Your task to perform on an android device: move a message to another label in the gmail app Image 0: 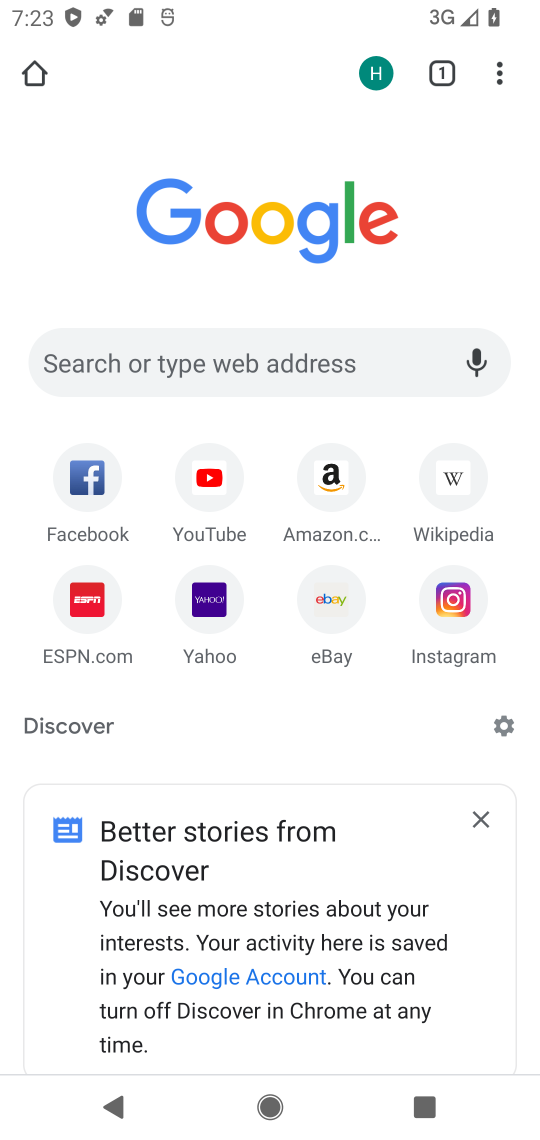
Step 0: press home button
Your task to perform on an android device: move a message to another label in the gmail app Image 1: 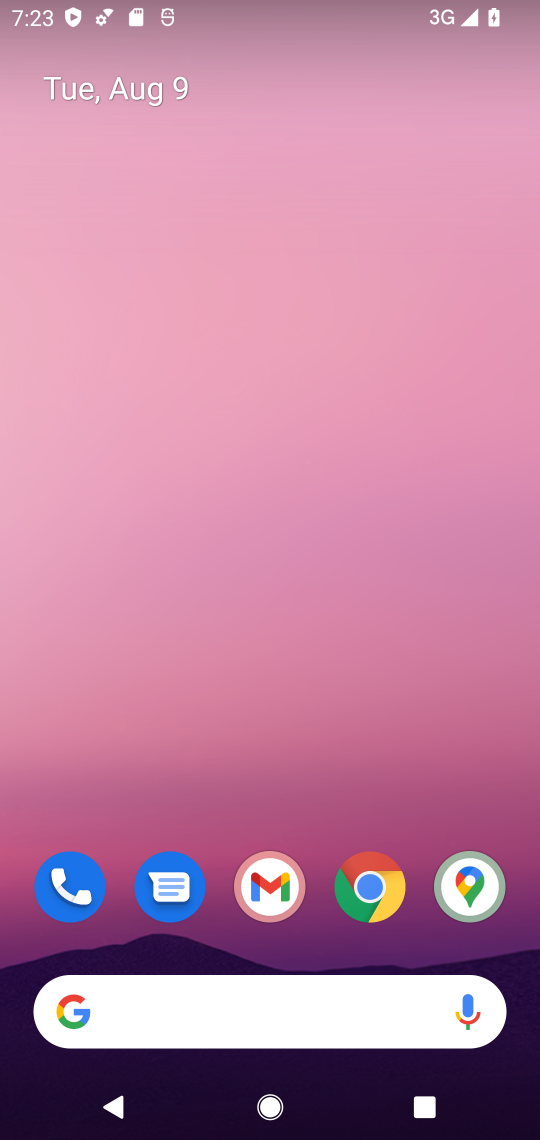
Step 1: click (276, 886)
Your task to perform on an android device: move a message to another label in the gmail app Image 2: 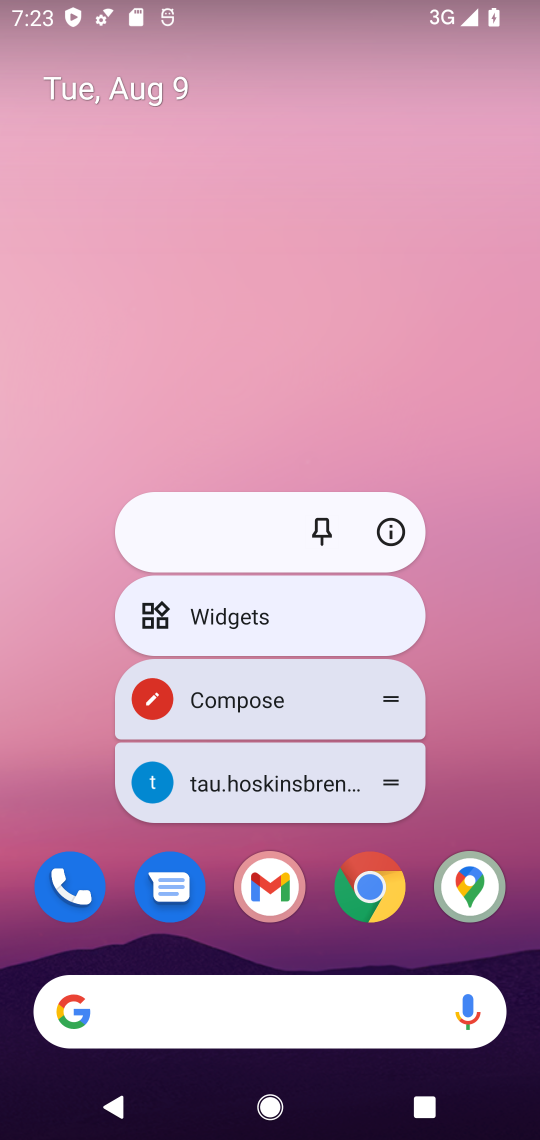
Step 2: click (276, 886)
Your task to perform on an android device: move a message to another label in the gmail app Image 3: 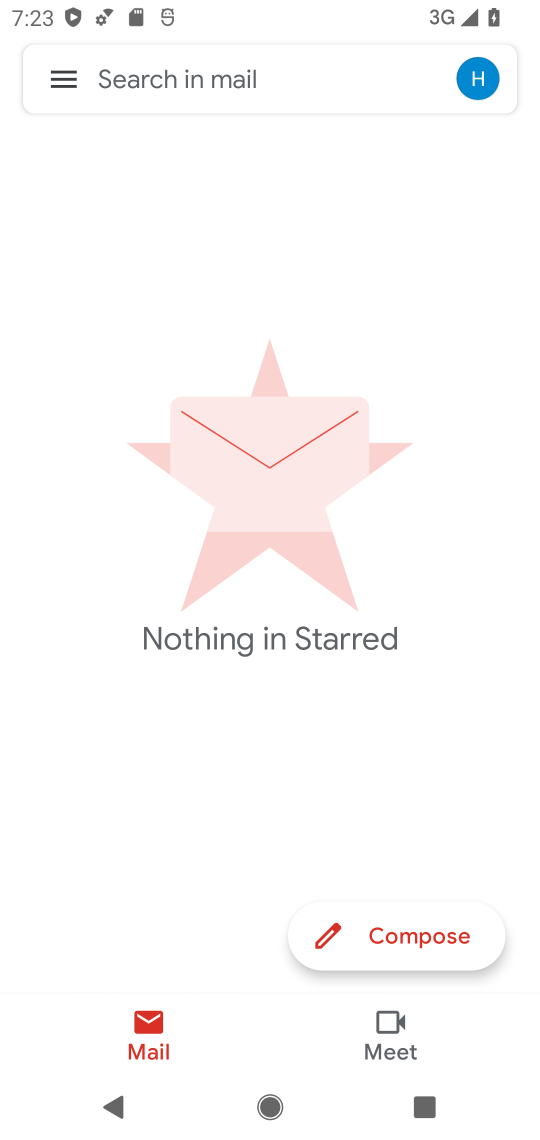
Step 3: click (64, 77)
Your task to perform on an android device: move a message to another label in the gmail app Image 4: 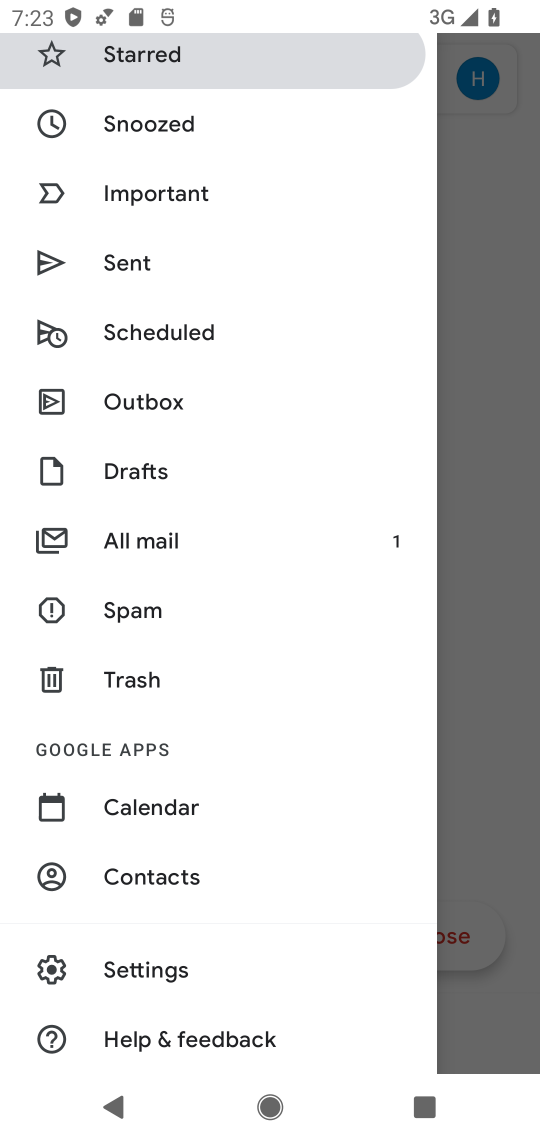
Step 4: click (141, 536)
Your task to perform on an android device: move a message to another label in the gmail app Image 5: 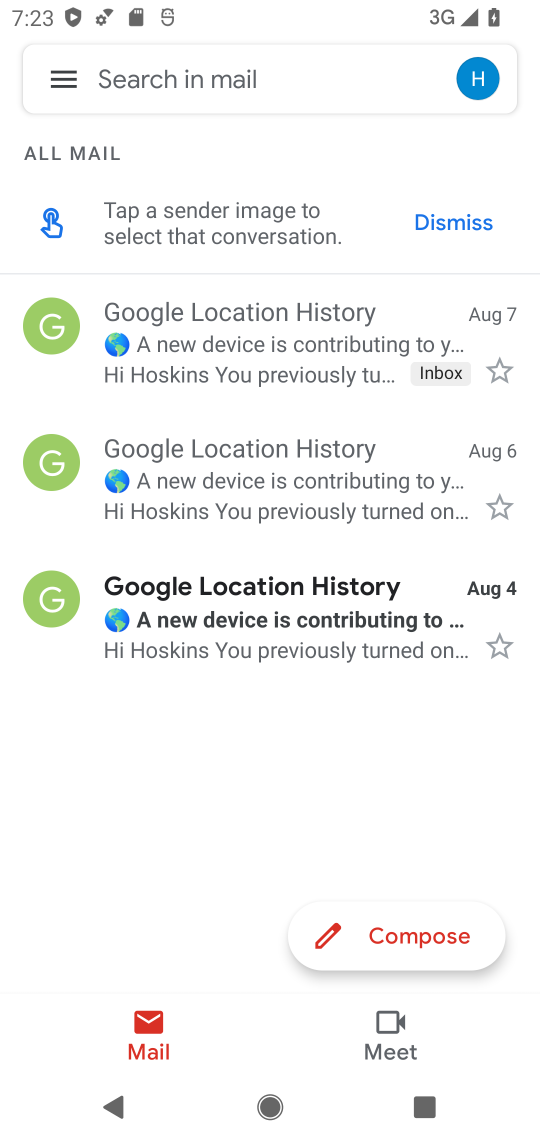
Step 5: click (174, 342)
Your task to perform on an android device: move a message to another label in the gmail app Image 6: 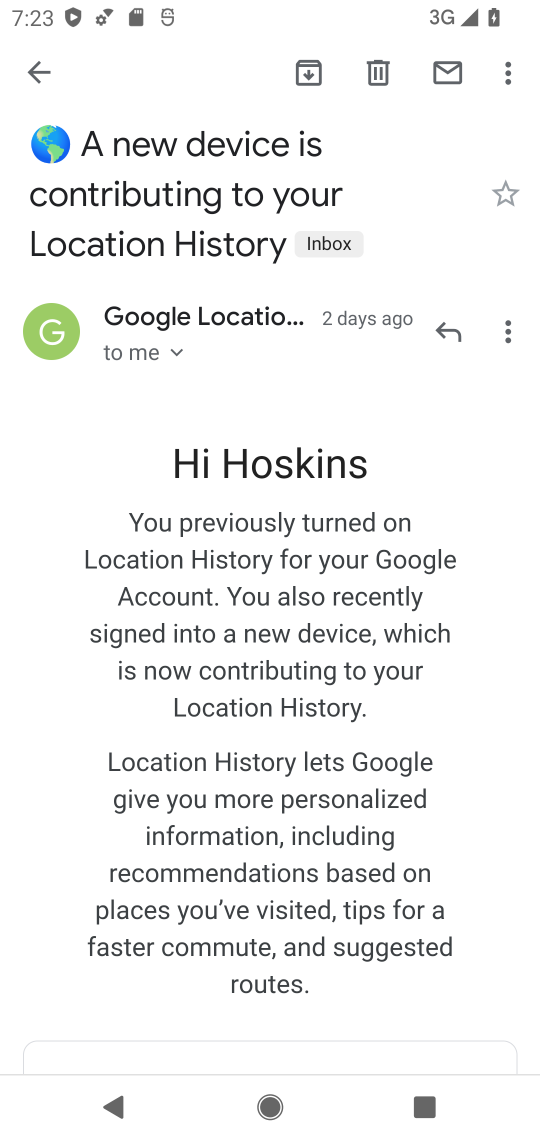
Step 6: click (504, 64)
Your task to perform on an android device: move a message to another label in the gmail app Image 7: 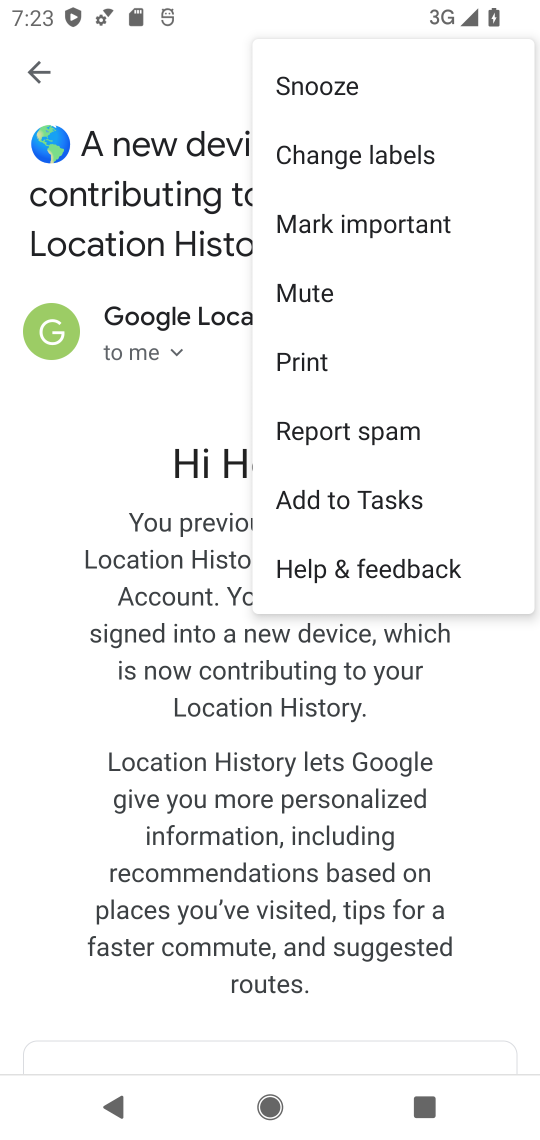
Step 7: click (426, 218)
Your task to perform on an android device: move a message to another label in the gmail app Image 8: 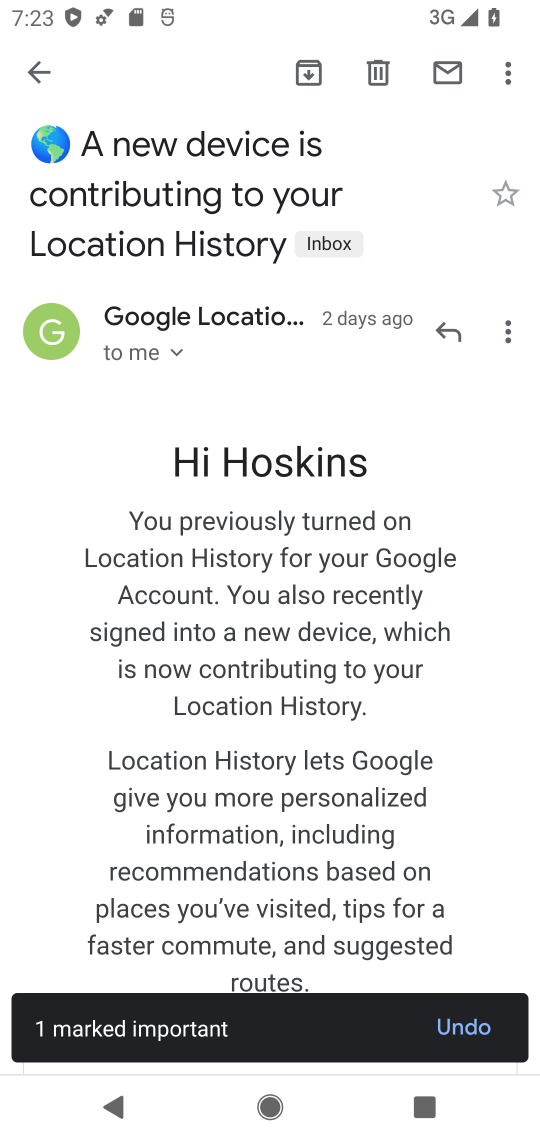
Step 8: task complete